Your task to perform on an android device: Go to display settings Image 0: 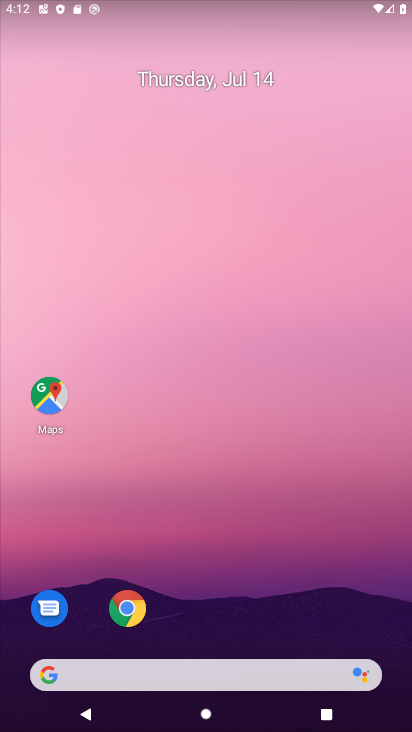
Step 0: drag from (86, 536) to (349, 172)
Your task to perform on an android device: Go to display settings Image 1: 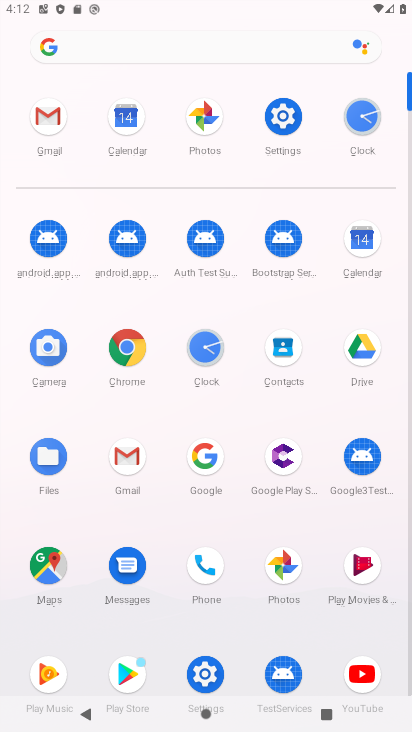
Step 1: click (274, 126)
Your task to perform on an android device: Go to display settings Image 2: 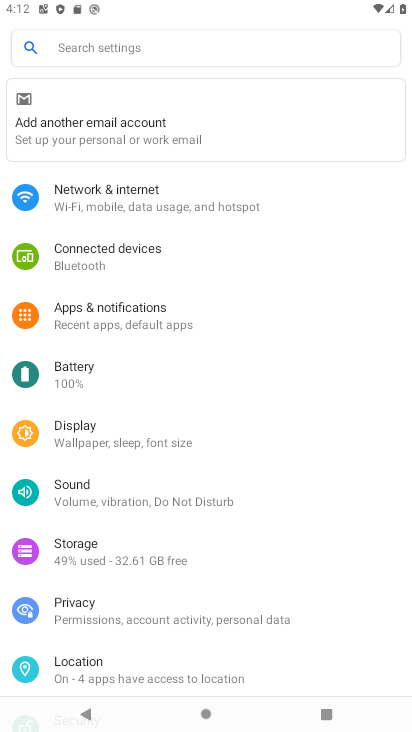
Step 2: click (134, 435)
Your task to perform on an android device: Go to display settings Image 3: 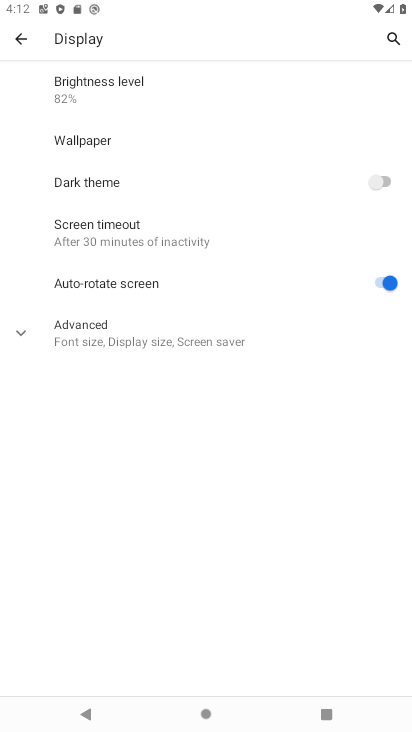
Step 3: task complete